Your task to perform on an android device: turn on data saver in the chrome app Image 0: 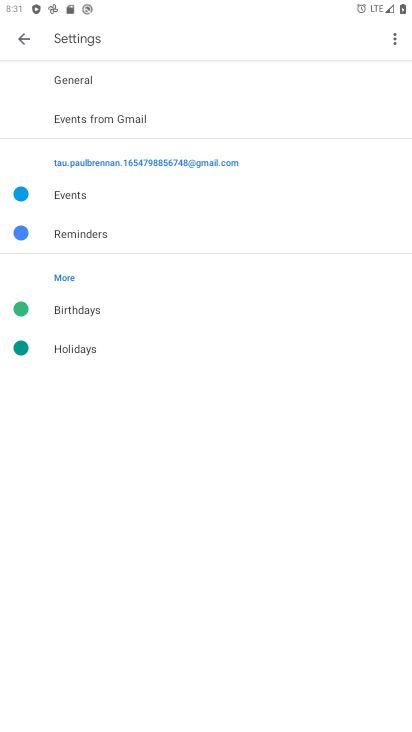
Step 0: click (15, 40)
Your task to perform on an android device: turn on data saver in the chrome app Image 1: 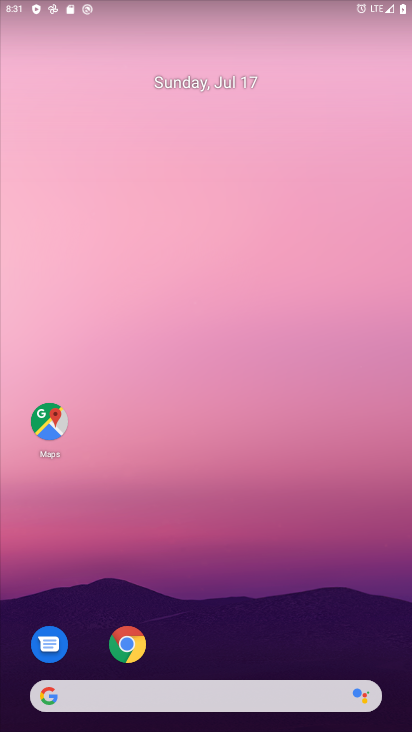
Step 1: click (210, 195)
Your task to perform on an android device: turn on data saver in the chrome app Image 2: 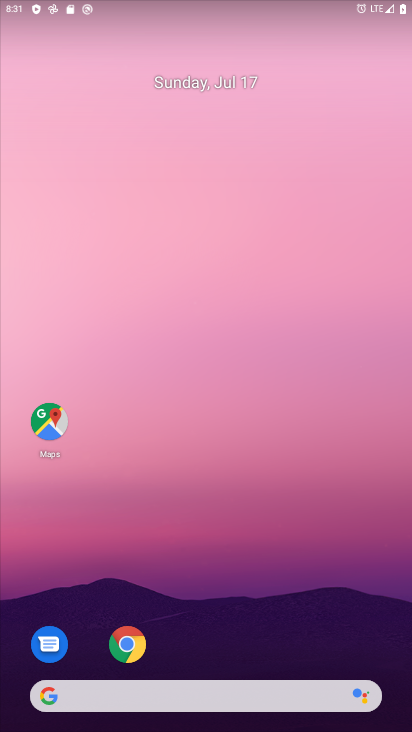
Step 2: drag from (223, 606) to (175, 85)
Your task to perform on an android device: turn on data saver in the chrome app Image 3: 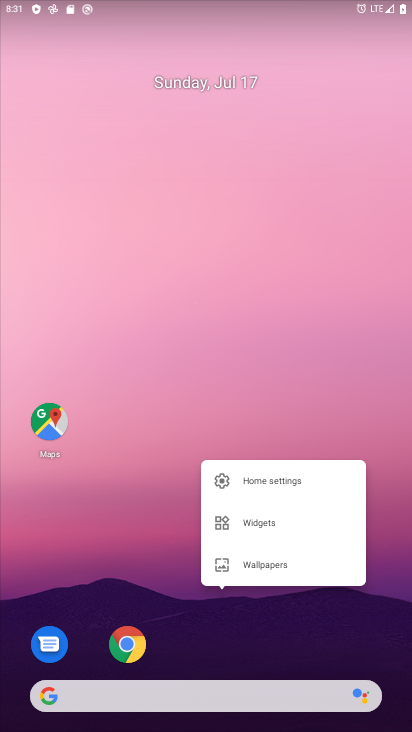
Step 3: click (124, 435)
Your task to perform on an android device: turn on data saver in the chrome app Image 4: 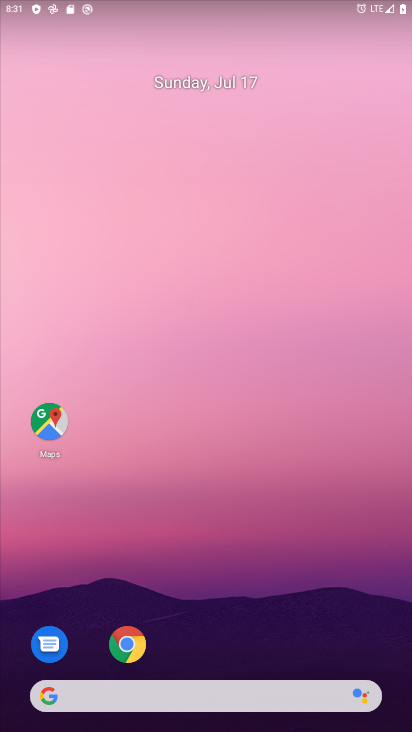
Step 4: drag from (178, 652) to (121, 64)
Your task to perform on an android device: turn on data saver in the chrome app Image 5: 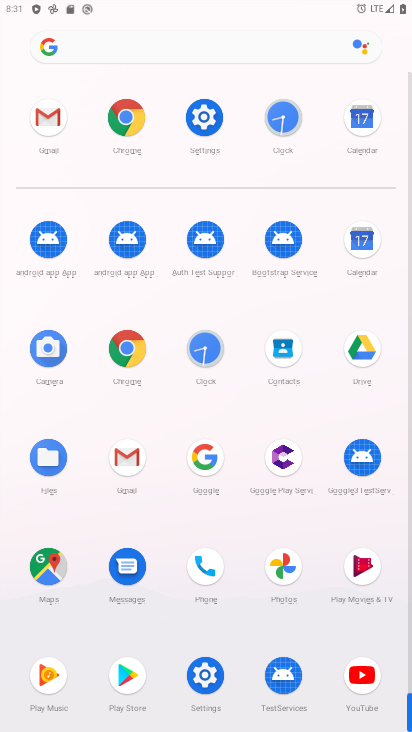
Step 5: drag from (175, 583) to (116, 206)
Your task to perform on an android device: turn on data saver in the chrome app Image 6: 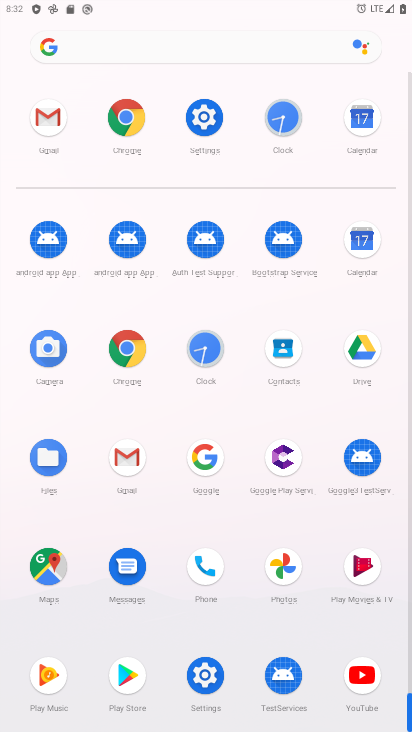
Step 6: click (117, 123)
Your task to perform on an android device: turn on data saver in the chrome app Image 7: 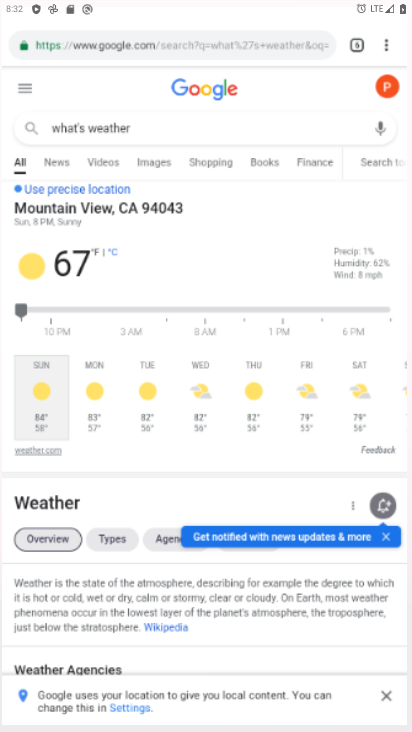
Step 7: click (117, 123)
Your task to perform on an android device: turn on data saver in the chrome app Image 8: 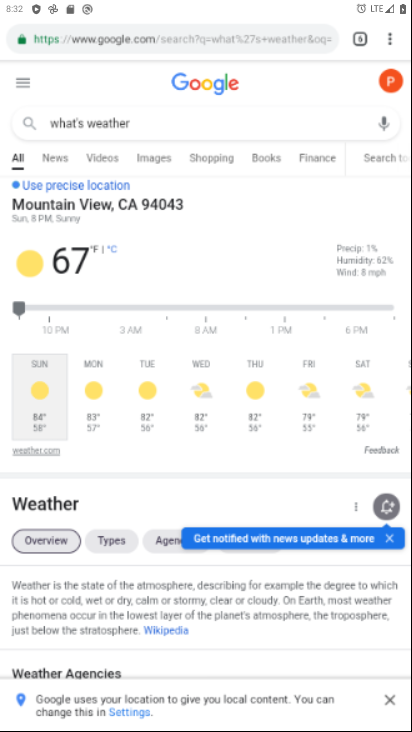
Step 8: click (117, 123)
Your task to perform on an android device: turn on data saver in the chrome app Image 9: 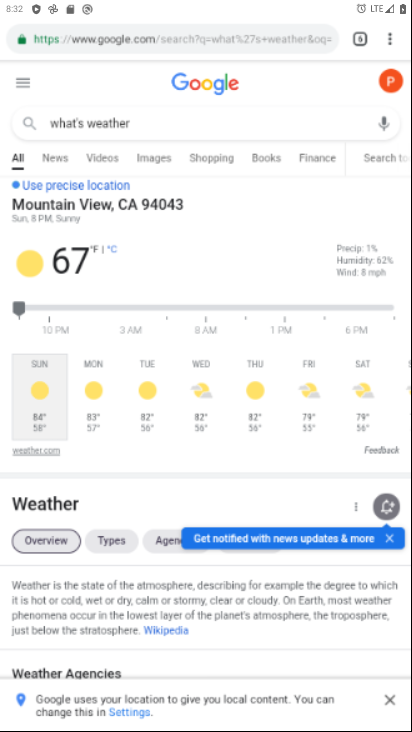
Step 9: click (118, 123)
Your task to perform on an android device: turn on data saver in the chrome app Image 10: 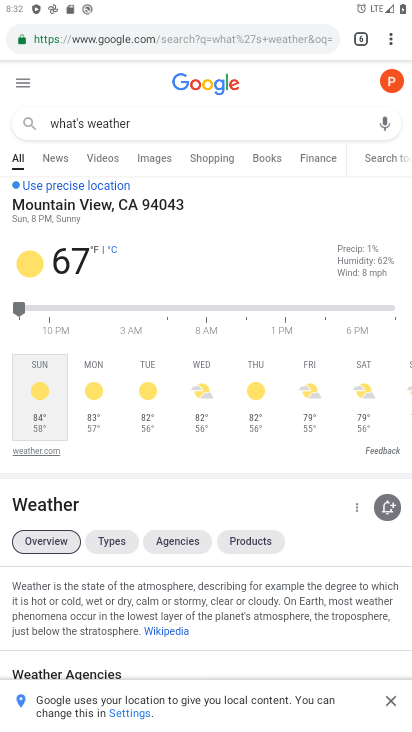
Step 10: drag from (390, 43) to (240, 444)
Your task to perform on an android device: turn on data saver in the chrome app Image 11: 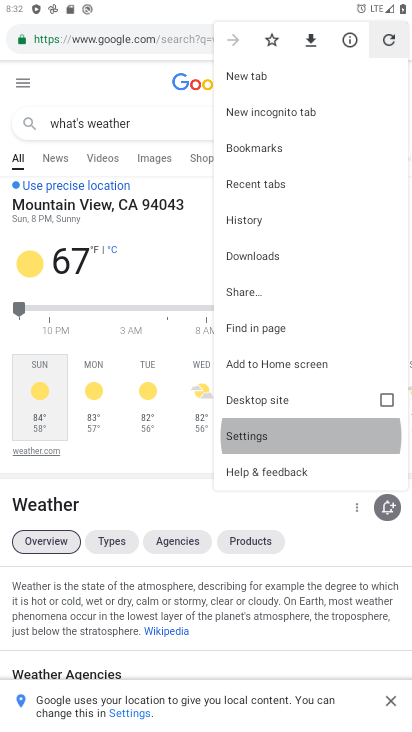
Step 11: click (251, 437)
Your task to perform on an android device: turn on data saver in the chrome app Image 12: 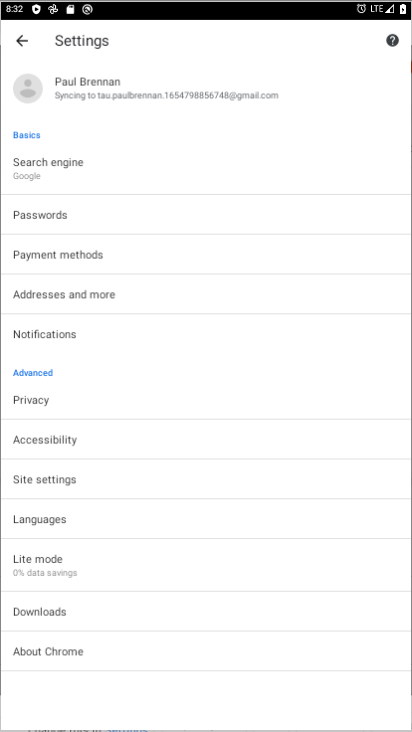
Step 12: click (247, 447)
Your task to perform on an android device: turn on data saver in the chrome app Image 13: 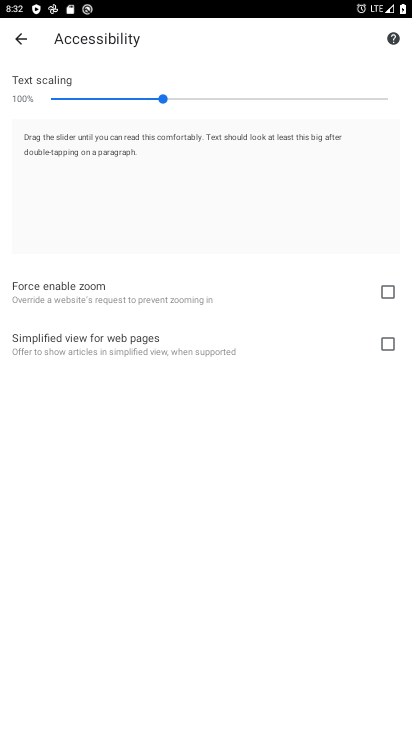
Step 13: click (14, 36)
Your task to perform on an android device: turn on data saver in the chrome app Image 14: 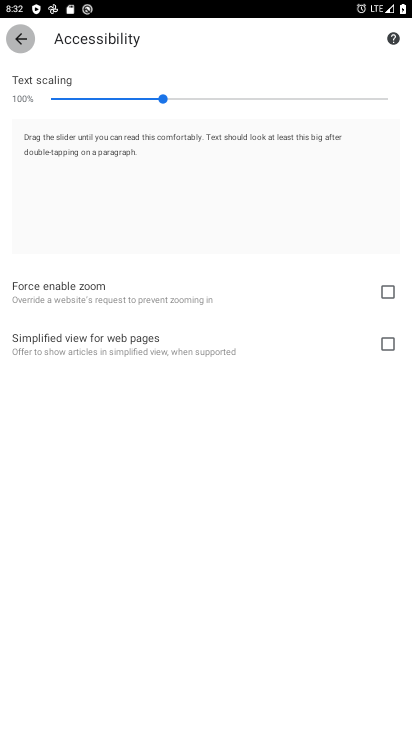
Step 14: click (15, 37)
Your task to perform on an android device: turn on data saver in the chrome app Image 15: 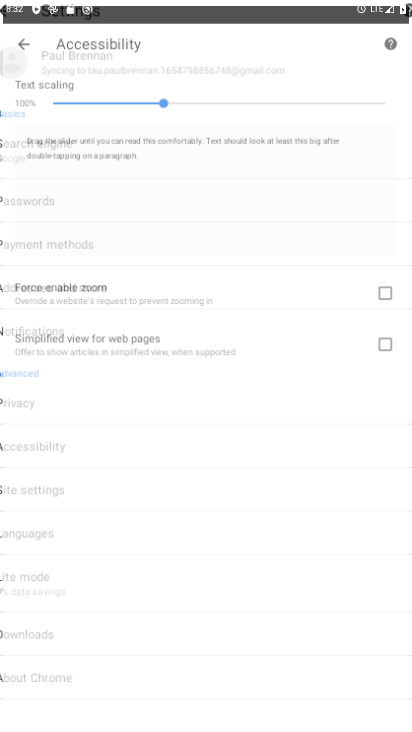
Step 15: click (17, 39)
Your task to perform on an android device: turn on data saver in the chrome app Image 16: 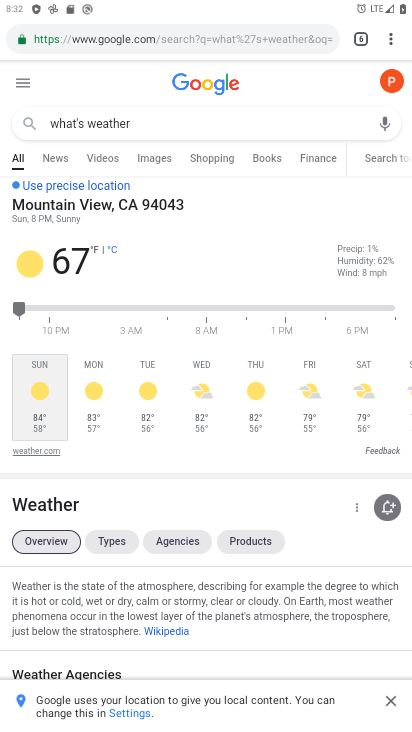
Step 16: click (390, 39)
Your task to perform on an android device: turn on data saver in the chrome app Image 17: 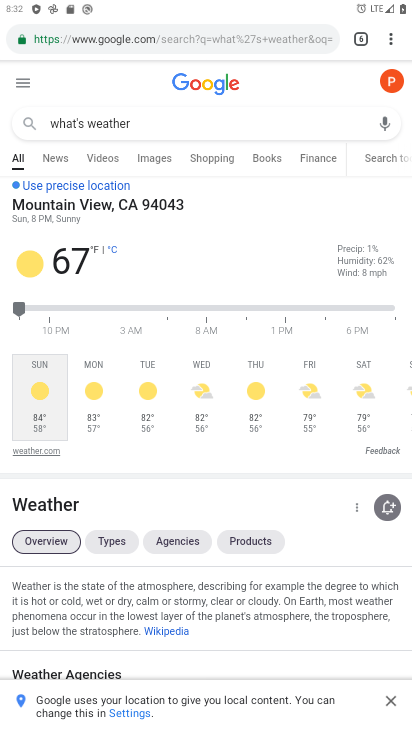
Step 17: click (396, 32)
Your task to perform on an android device: turn on data saver in the chrome app Image 18: 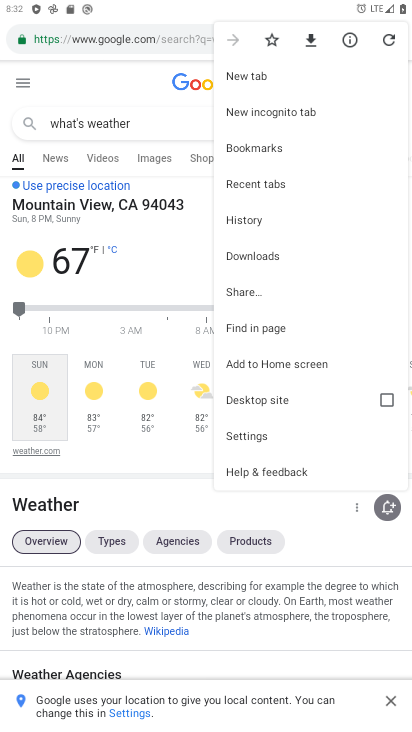
Step 18: click (241, 433)
Your task to perform on an android device: turn on data saver in the chrome app Image 19: 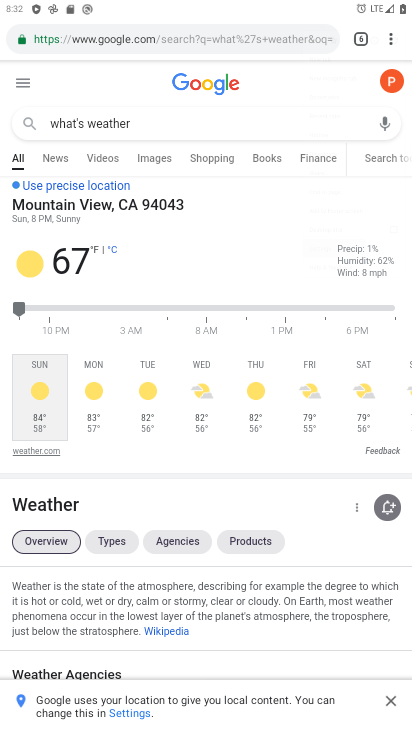
Step 19: click (241, 435)
Your task to perform on an android device: turn on data saver in the chrome app Image 20: 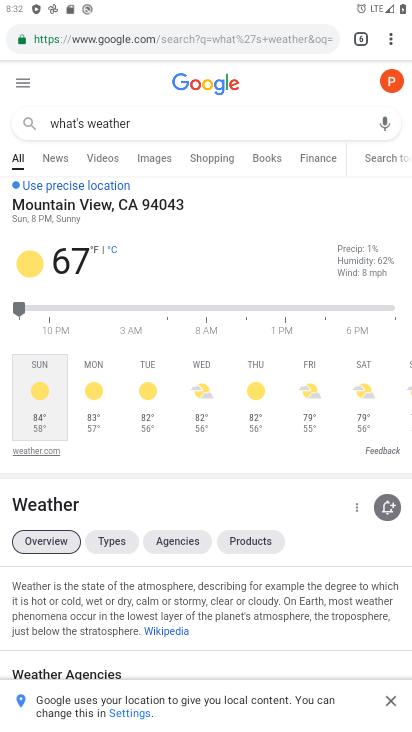
Step 20: click (245, 438)
Your task to perform on an android device: turn on data saver in the chrome app Image 21: 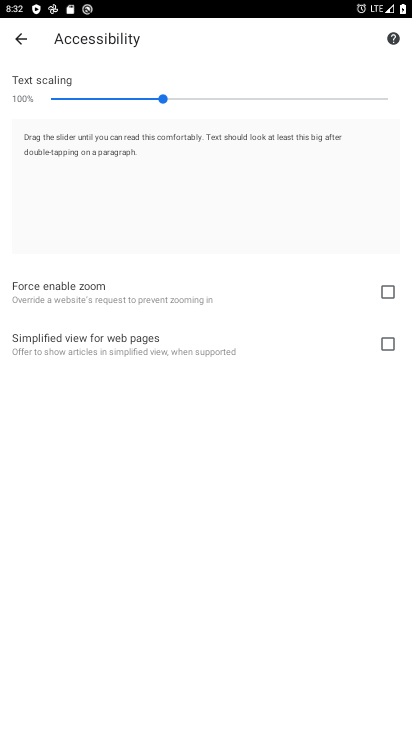
Step 21: click (20, 34)
Your task to perform on an android device: turn on data saver in the chrome app Image 22: 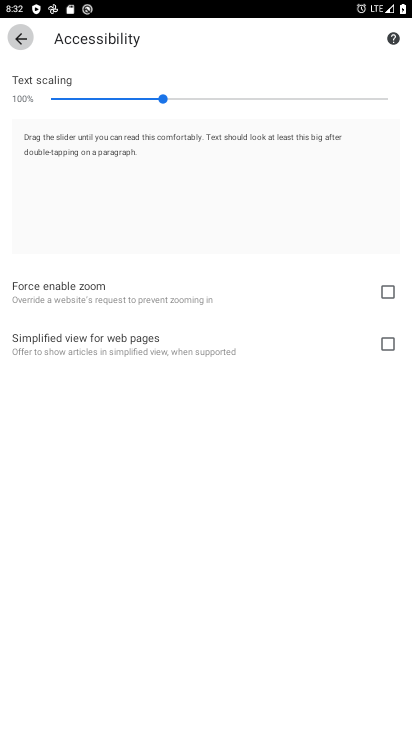
Step 22: click (20, 34)
Your task to perform on an android device: turn on data saver in the chrome app Image 23: 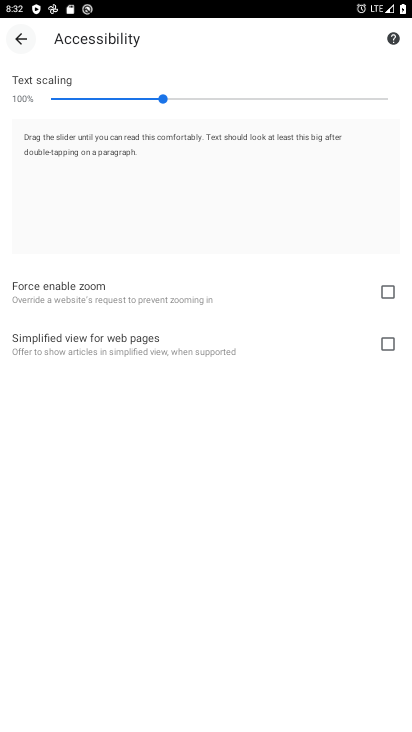
Step 23: click (21, 35)
Your task to perform on an android device: turn on data saver in the chrome app Image 24: 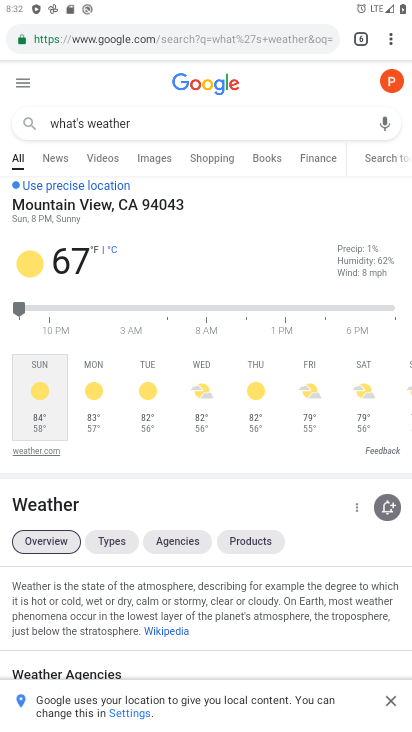
Step 24: drag from (390, 38) to (251, 439)
Your task to perform on an android device: turn on data saver in the chrome app Image 25: 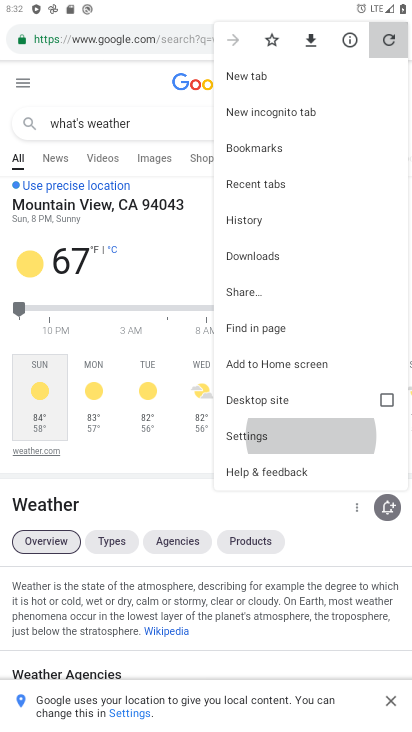
Step 25: click (251, 440)
Your task to perform on an android device: turn on data saver in the chrome app Image 26: 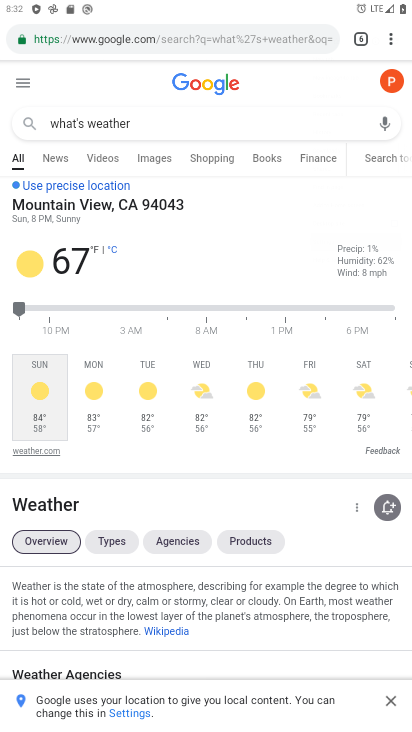
Step 26: click (251, 441)
Your task to perform on an android device: turn on data saver in the chrome app Image 27: 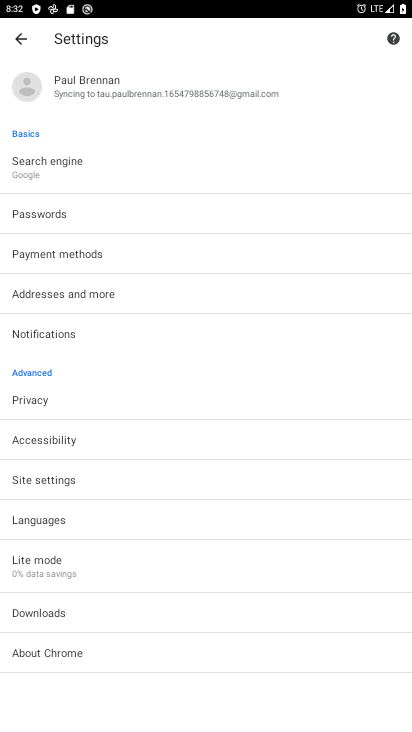
Step 27: click (42, 560)
Your task to perform on an android device: turn on data saver in the chrome app Image 28: 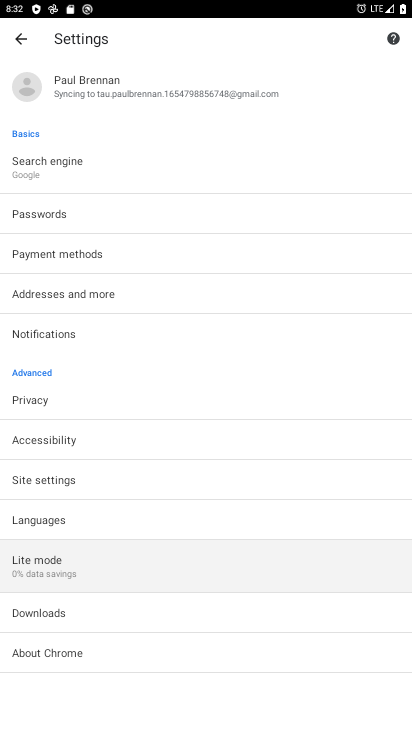
Step 28: click (51, 568)
Your task to perform on an android device: turn on data saver in the chrome app Image 29: 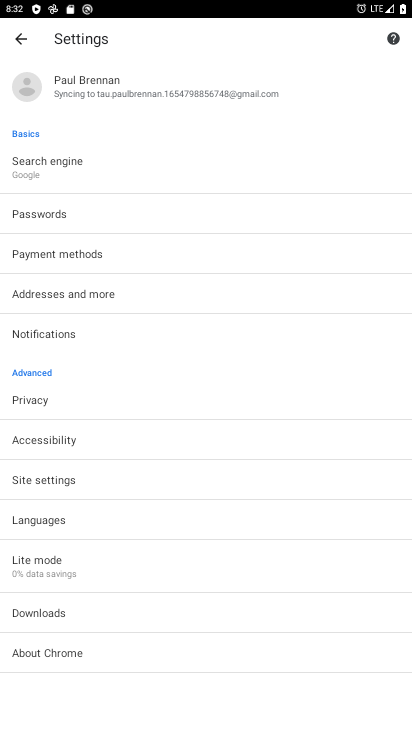
Step 29: click (58, 564)
Your task to perform on an android device: turn on data saver in the chrome app Image 30: 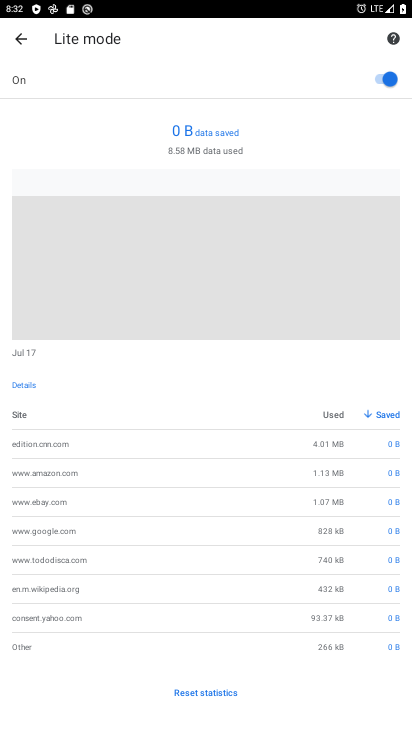
Step 30: task complete